Your task to perform on an android device: empty trash in google photos Image 0: 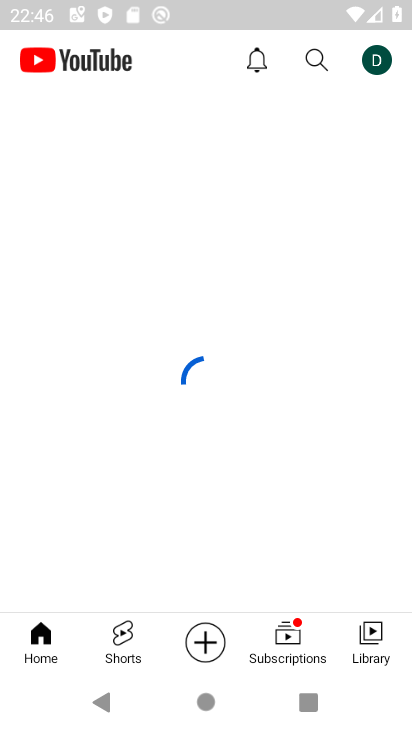
Step 0: press home button
Your task to perform on an android device: empty trash in google photos Image 1: 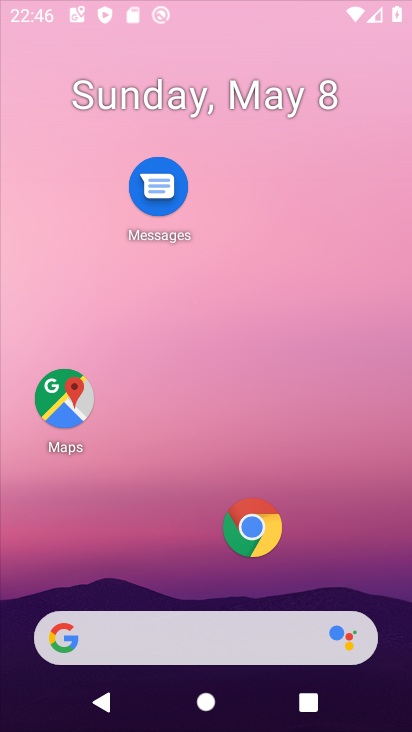
Step 1: drag from (192, 382) to (205, 54)
Your task to perform on an android device: empty trash in google photos Image 2: 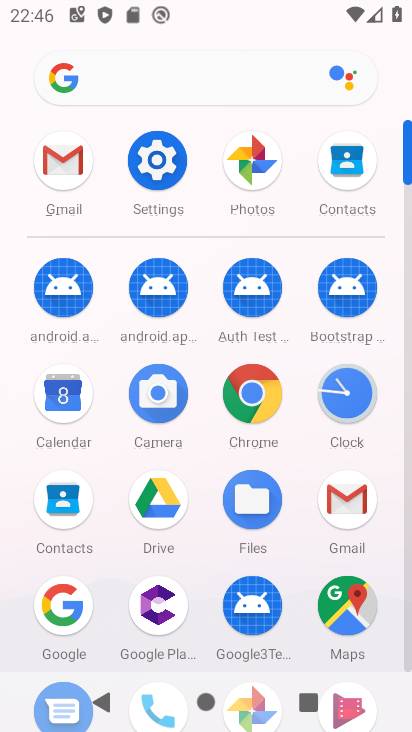
Step 2: click (253, 163)
Your task to perform on an android device: empty trash in google photos Image 3: 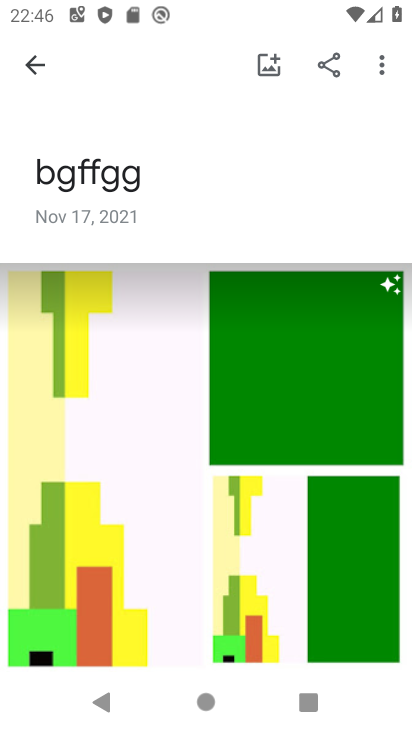
Step 3: press back button
Your task to perform on an android device: empty trash in google photos Image 4: 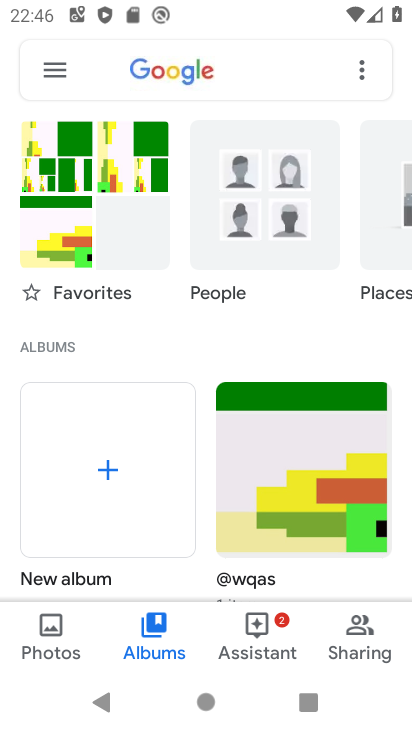
Step 4: click (44, 66)
Your task to perform on an android device: empty trash in google photos Image 5: 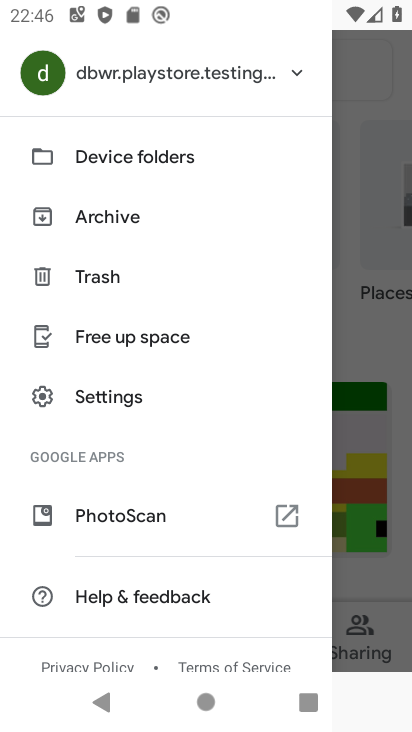
Step 5: drag from (154, 529) to (159, 325)
Your task to perform on an android device: empty trash in google photos Image 6: 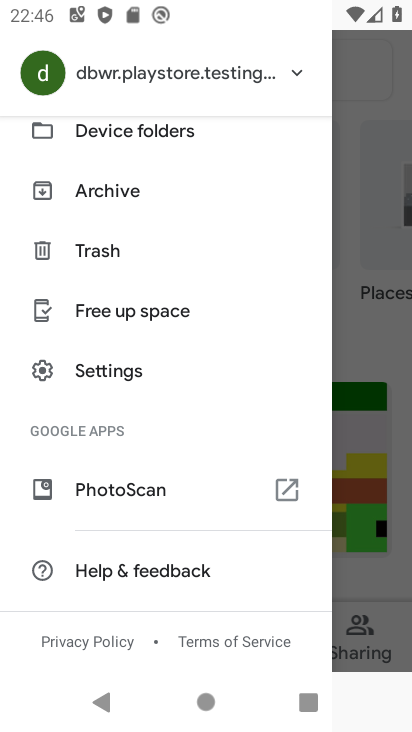
Step 6: click (95, 244)
Your task to perform on an android device: empty trash in google photos Image 7: 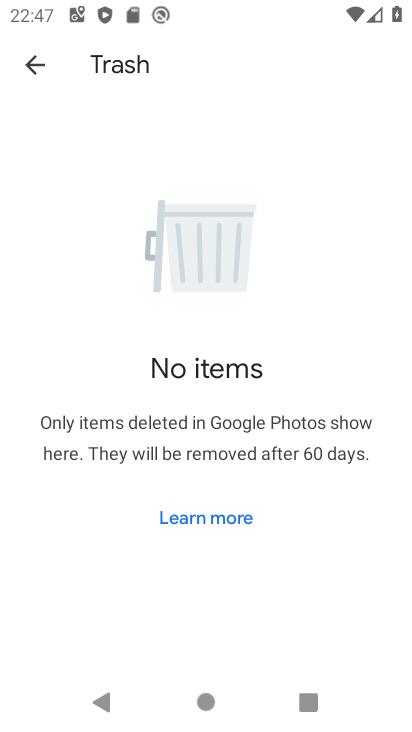
Step 7: task complete